Your task to perform on an android device: open the mobile data screen to see how much data has been used Image 0: 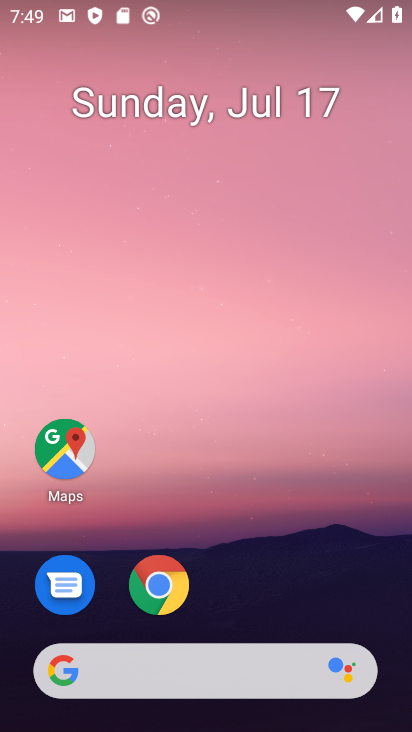
Step 0: drag from (213, 677) to (371, 117)
Your task to perform on an android device: open the mobile data screen to see how much data has been used Image 1: 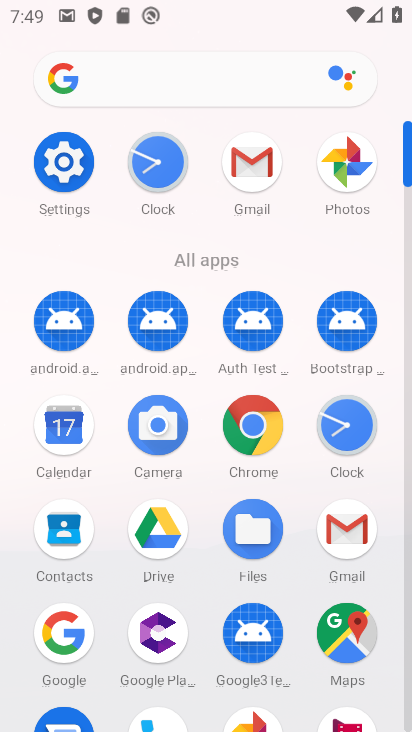
Step 1: click (80, 160)
Your task to perform on an android device: open the mobile data screen to see how much data has been used Image 2: 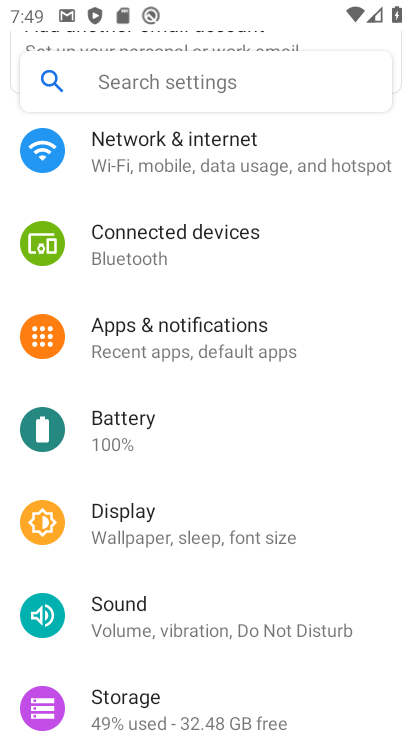
Step 2: click (216, 150)
Your task to perform on an android device: open the mobile data screen to see how much data has been used Image 3: 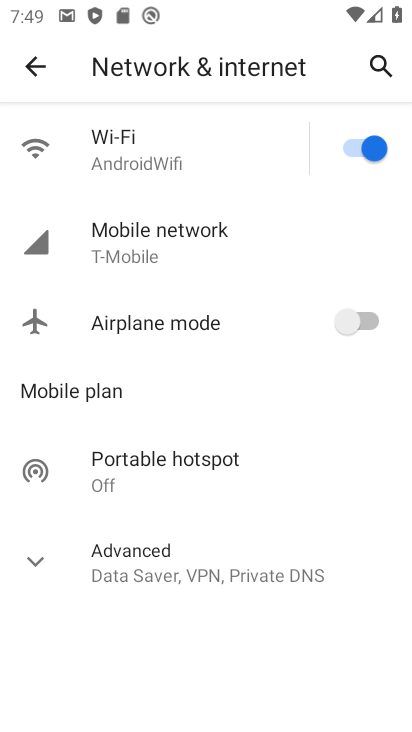
Step 3: click (162, 262)
Your task to perform on an android device: open the mobile data screen to see how much data has been used Image 4: 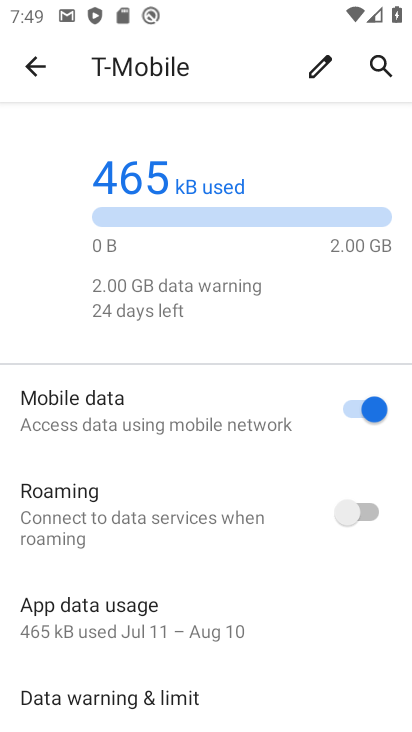
Step 4: task complete